Your task to perform on an android device: Open Google Image 0: 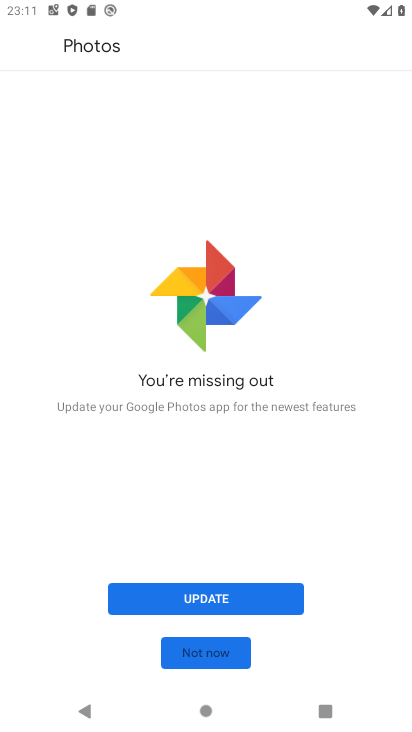
Step 0: press home button
Your task to perform on an android device: Open Google Image 1: 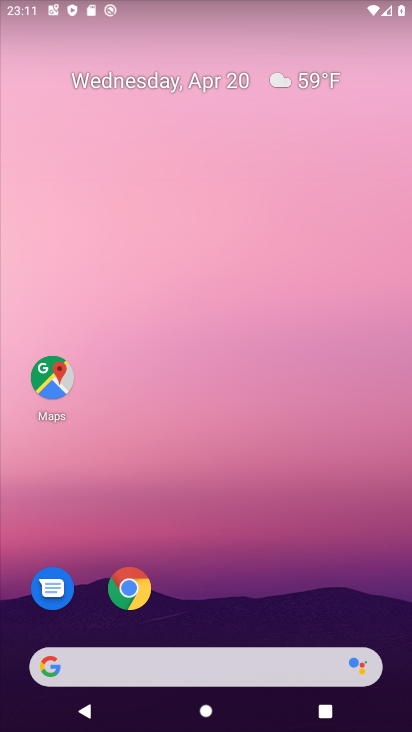
Step 1: drag from (224, 726) to (212, 88)
Your task to perform on an android device: Open Google Image 2: 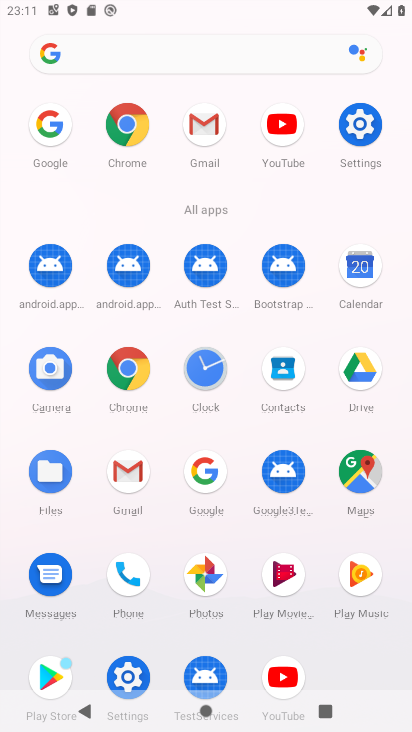
Step 2: click (201, 467)
Your task to perform on an android device: Open Google Image 3: 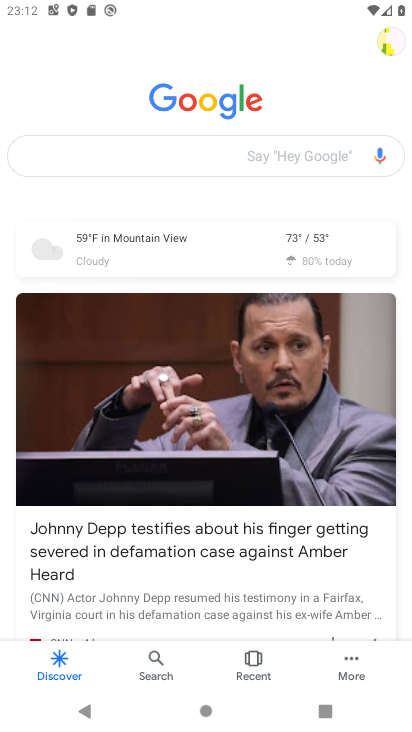
Step 3: task complete